Your task to perform on an android device: Open Chrome and go to the settings page Image 0: 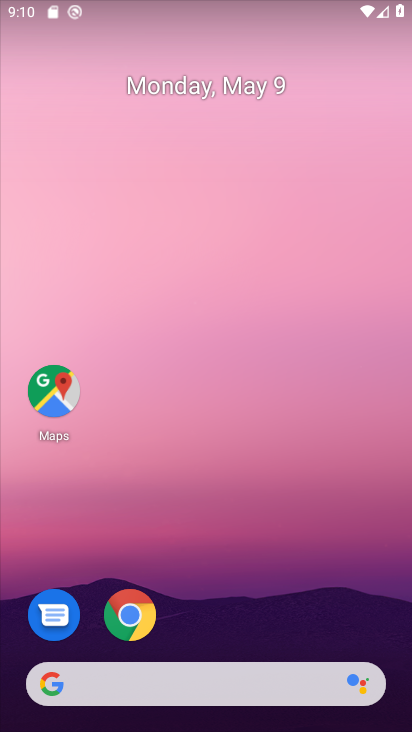
Step 0: drag from (231, 713) to (293, 301)
Your task to perform on an android device: Open Chrome and go to the settings page Image 1: 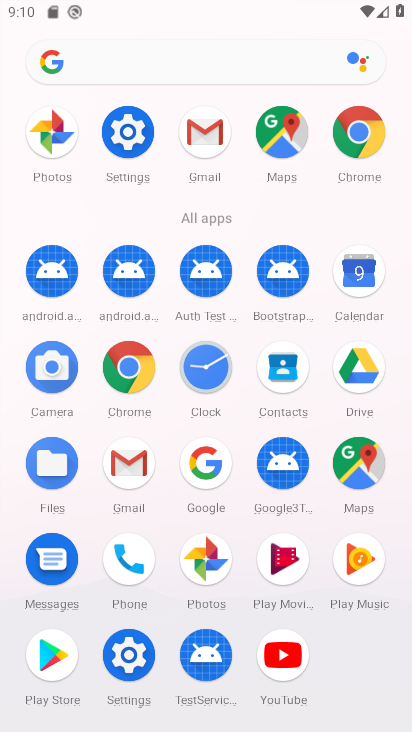
Step 1: click (121, 362)
Your task to perform on an android device: Open Chrome and go to the settings page Image 2: 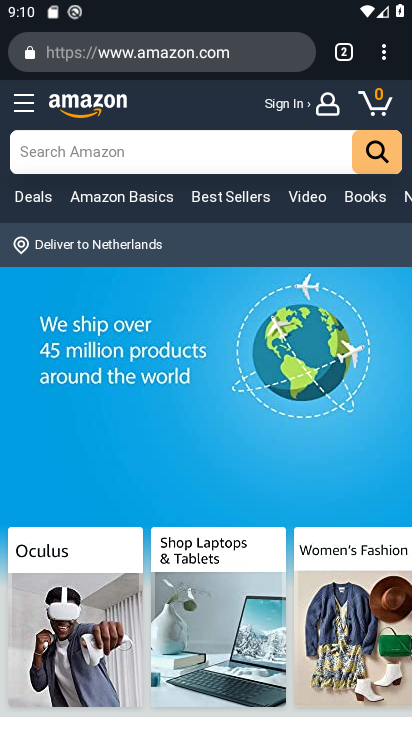
Step 2: click (376, 62)
Your task to perform on an android device: Open Chrome and go to the settings page Image 3: 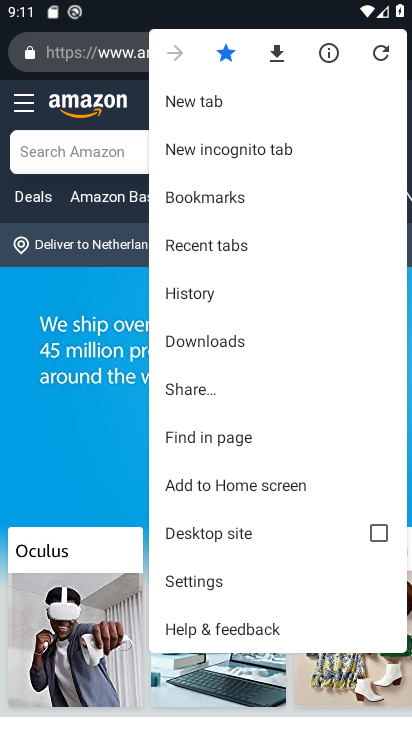
Step 3: click (202, 579)
Your task to perform on an android device: Open Chrome and go to the settings page Image 4: 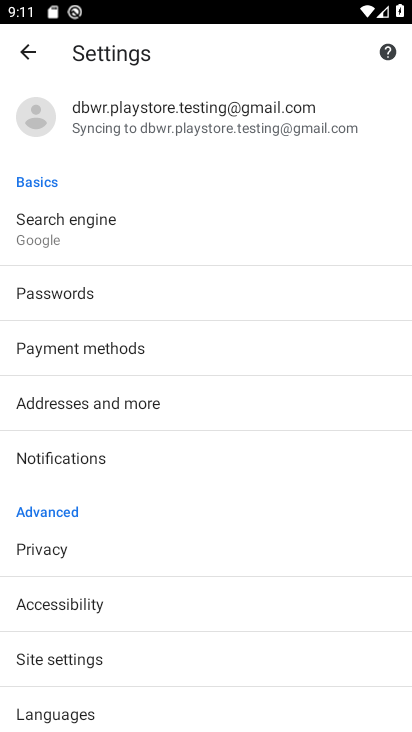
Step 4: task complete